Your task to perform on an android device: install app "Google Find My Device" Image 0: 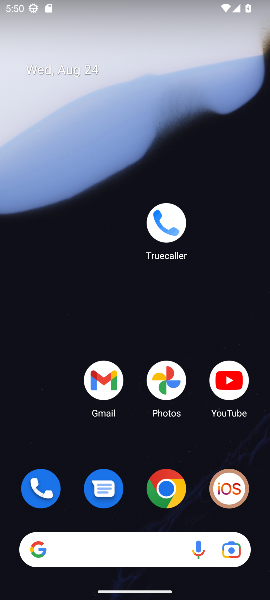
Step 0: drag from (135, 284) to (122, 78)
Your task to perform on an android device: install app "Google Find My Device" Image 1: 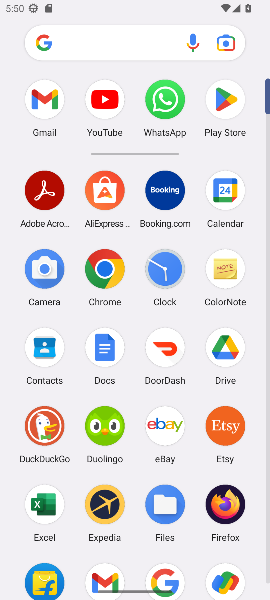
Step 1: click (215, 114)
Your task to perform on an android device: install app "Google Find My Device" Image 2: 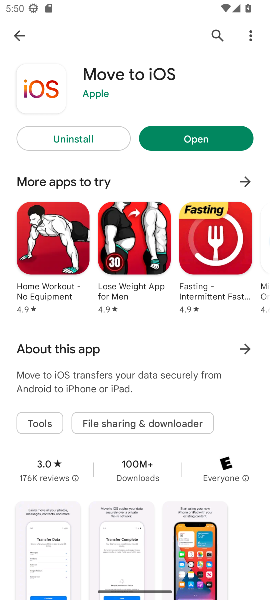
Step 2: click (218, 42)
Your task to perform on an android device: install app "Google Find My Device" Image 3: 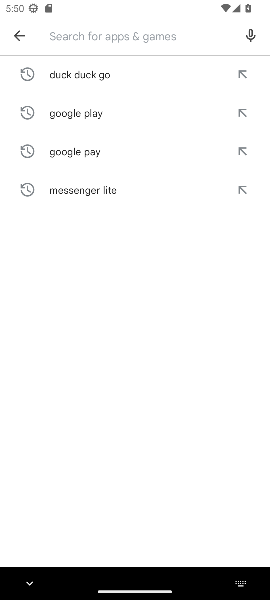
Step 3: type "google find my device"
Your task to perform on an android device: install app "Google Find My Device" Image 4: 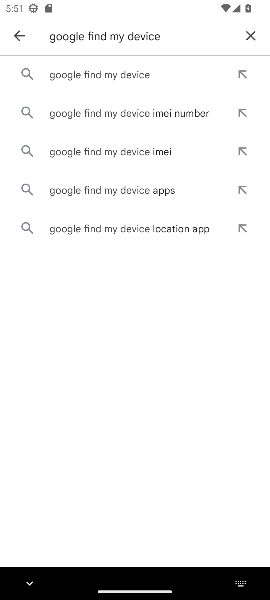
Step 4: click (122, 59)
Your task to perform on an android device: install app "Google Find My Device" Image 5: 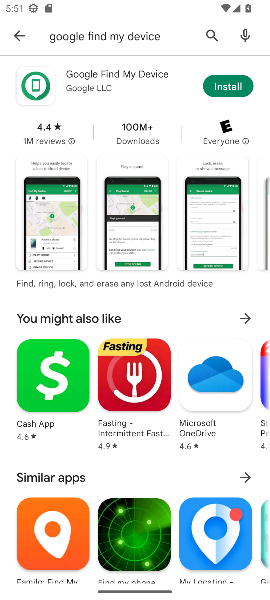
Step 5: click (233, 76)
Your task to perform on an android device: install app "Google Find My Device" Image 6: 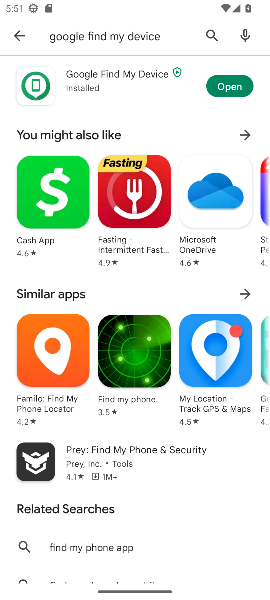
Step 6: click (232, 90)
Your task to perform on an android device: install app "Google Find My Device" Image 7: 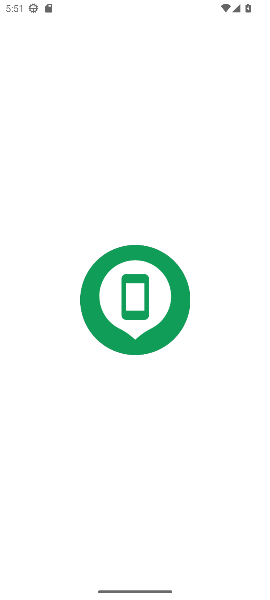
Step 7: task complete